Your task to perform on an android device: turn on showing notifications on the lock screen Image 0: 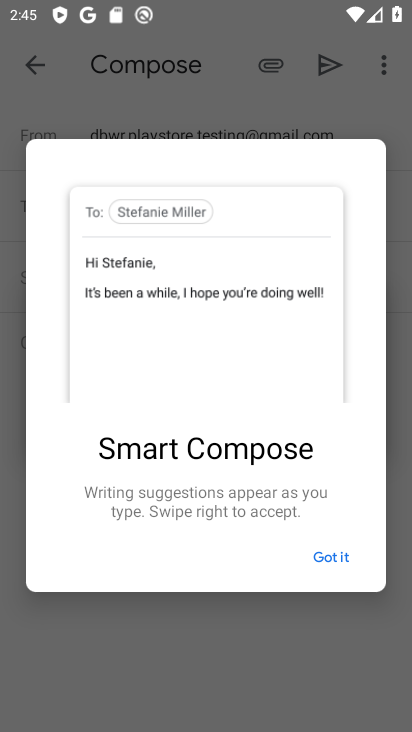
Step 0: press home button
Your task to perform on an android device: turn on showing notifications on the lock screen Image 1: 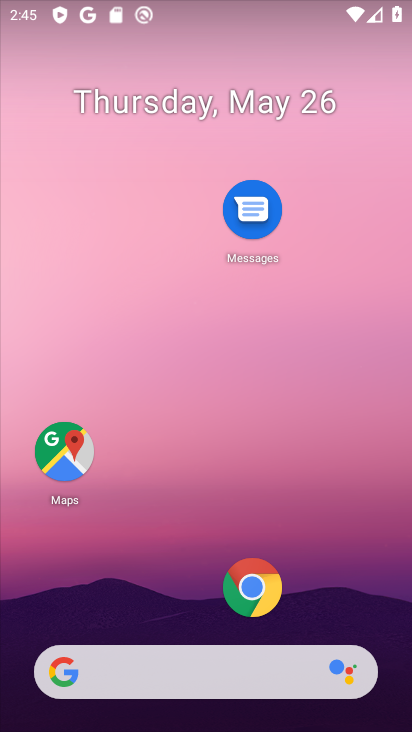
Step 1: drag from (177, 623) to (188, 8)
Your task to perform on an android device: turn on showing notifications on the lock screen Image 2: 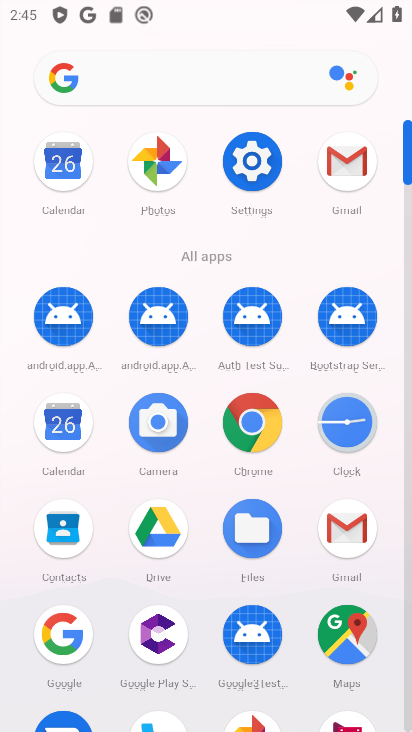
Step 2: click (269, 183)
Your task to perform on an android device: turn on showing notifications on the lock screen Image 3: 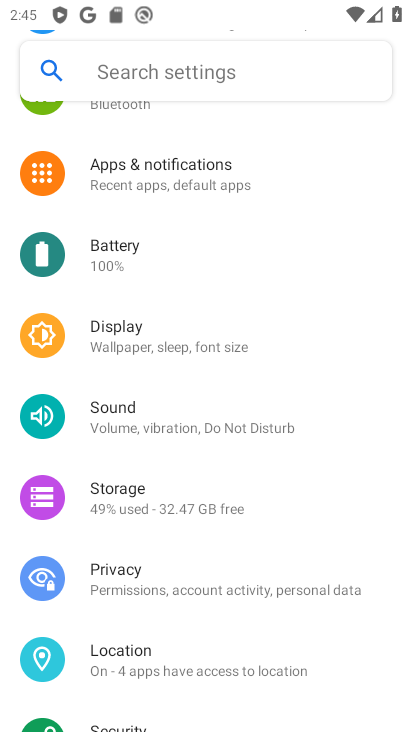
Step 3: click (222, 183)
Your task to perform on an android device: turn on showing notifications on the lock screen Image 4: 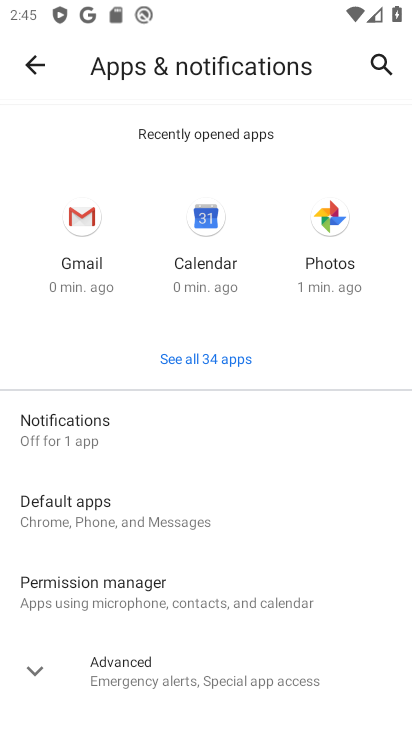
Step 4: click (95, 427)
Your task to perform on an android device: turn on showing notifications on the lock screen Image 5: 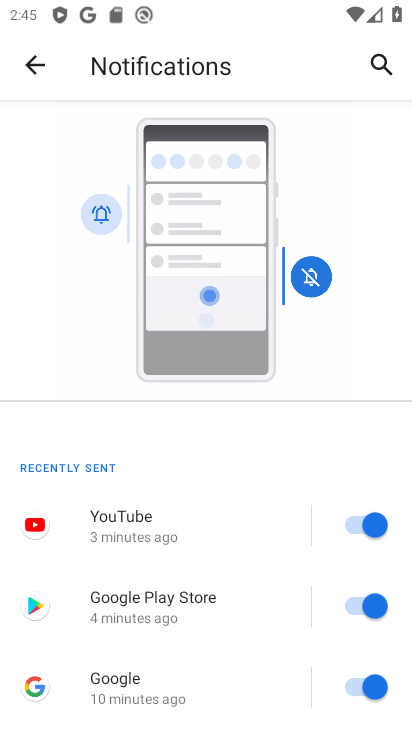
Step 5: drag from (167, 589) to (182, 278)
Your task to perform on an android device: turn on showing notifications on the lock screen Image 6: 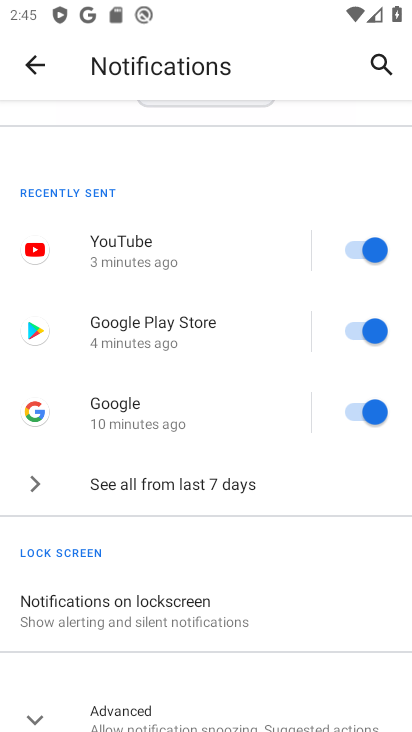
Step 6: drag from (143, 583) to (185, 375)
Your task to perform on an android device: turn on showing notifications on the lock screen Image 7: 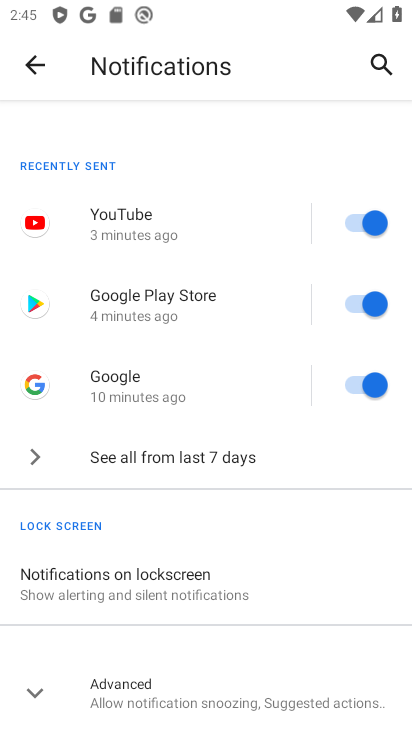
Step 7: click (137, 593)
Your task to perform on an android device: turn on showing notifications on the lock screen Image 8: 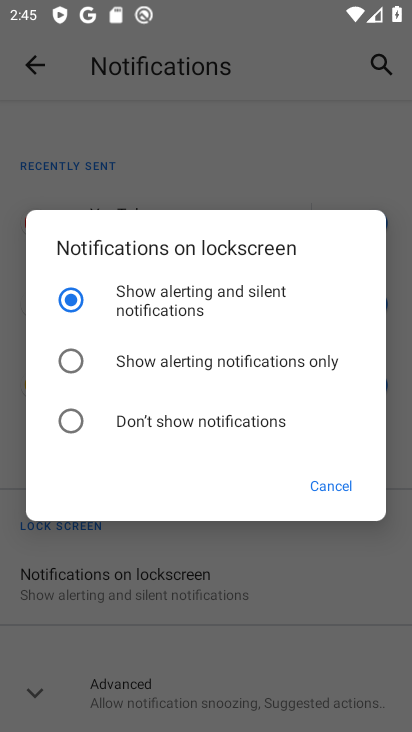
Step 8: task complete